Your task to perform on an android device: uninstall "Google Duo" Image 0: 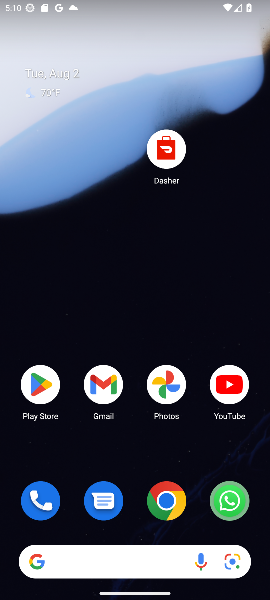
Step 0: click (42, 388)
Your task to perform on an android device: uninstall "Google Duo" Image 1: 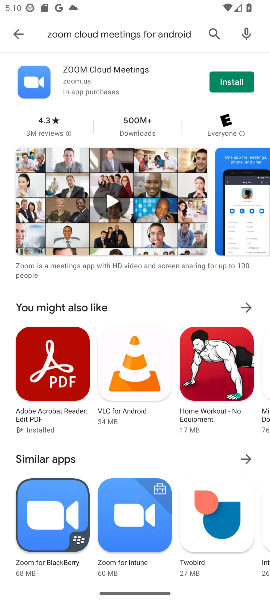
Step 1: click (215, 36)
Your task to perform on an android device: uninstall "Google Duo" Image 2: 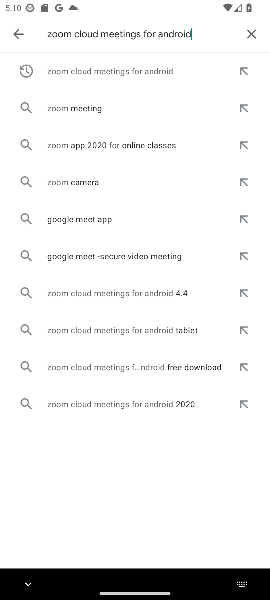
Step 2: click (250, 37)
Your task to perform on an android device: uninstall "Google Duo" Image 3: 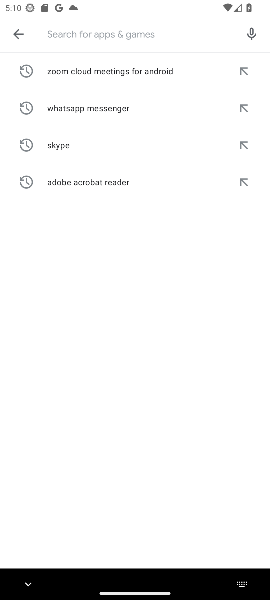
Step 3: type "Google Duo"
Your task to perform on an android device: uninstall "Google Duo" Image 4: 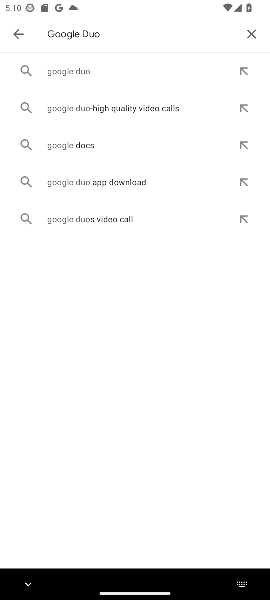
Step 4: click (70, 73)
Your task to perform on an android device: uninstall "Google Duo" Image 5: 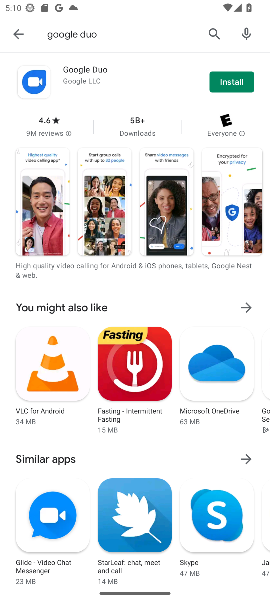
Step 5: task complete